Your task to perform on an android device: change keyboard looks Image 0: 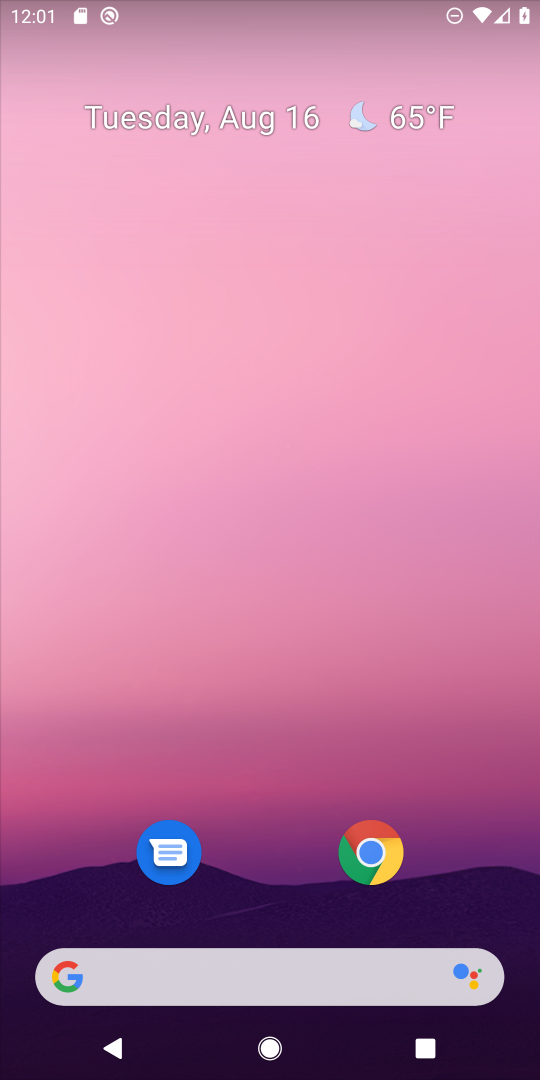
Step 0: drag from (225, 908) to (377, 175)
Your task to perform on an android device: change keyboard looks Image 1: 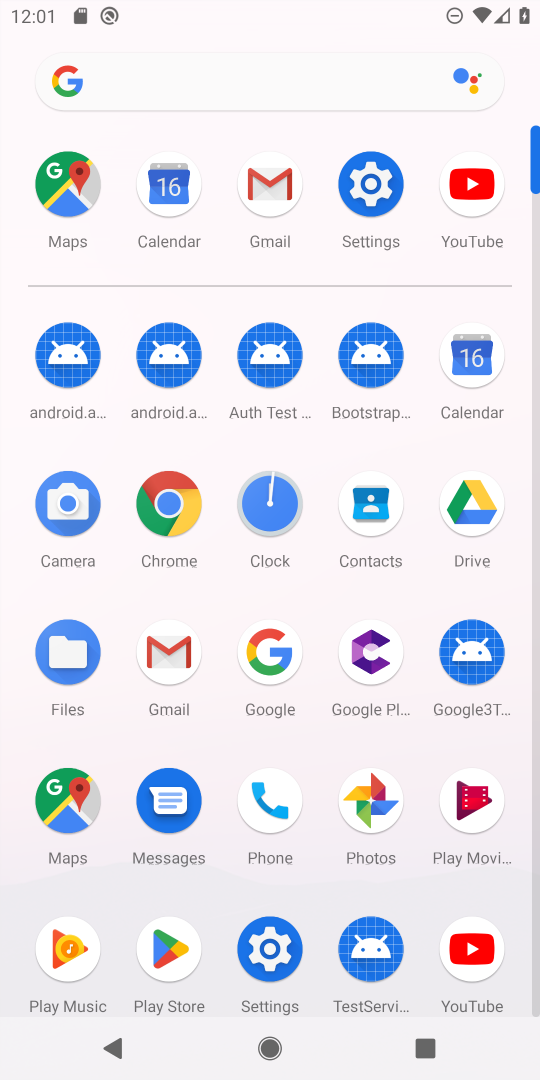
Step 1: click (364, 202)
Your task to perform on an android device: change keyboard looks Image 2: 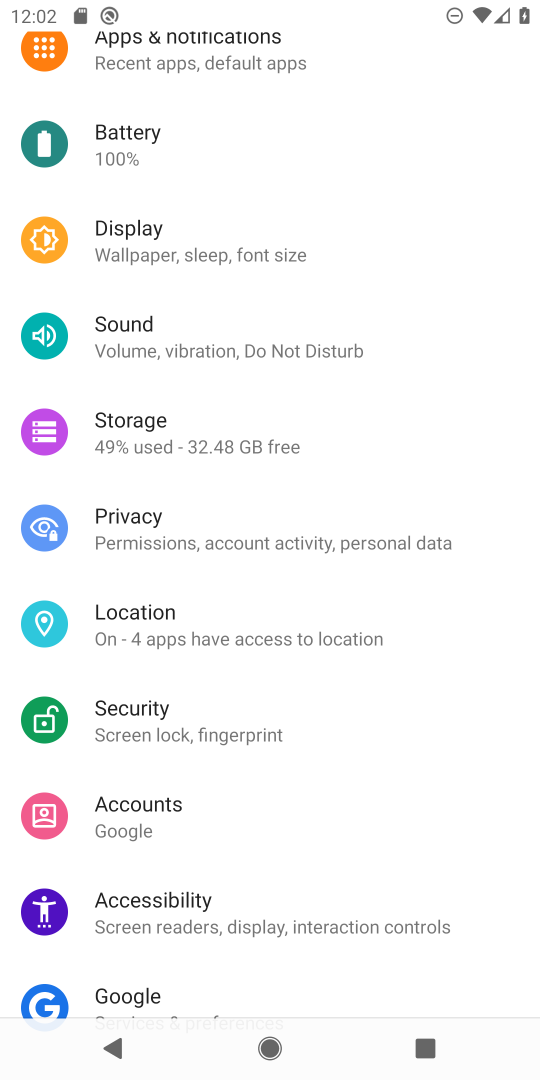
Step 2: drag from (238, 991) to (428, 18)
Your task to perform on an android device: change keyboard looks Image 3: 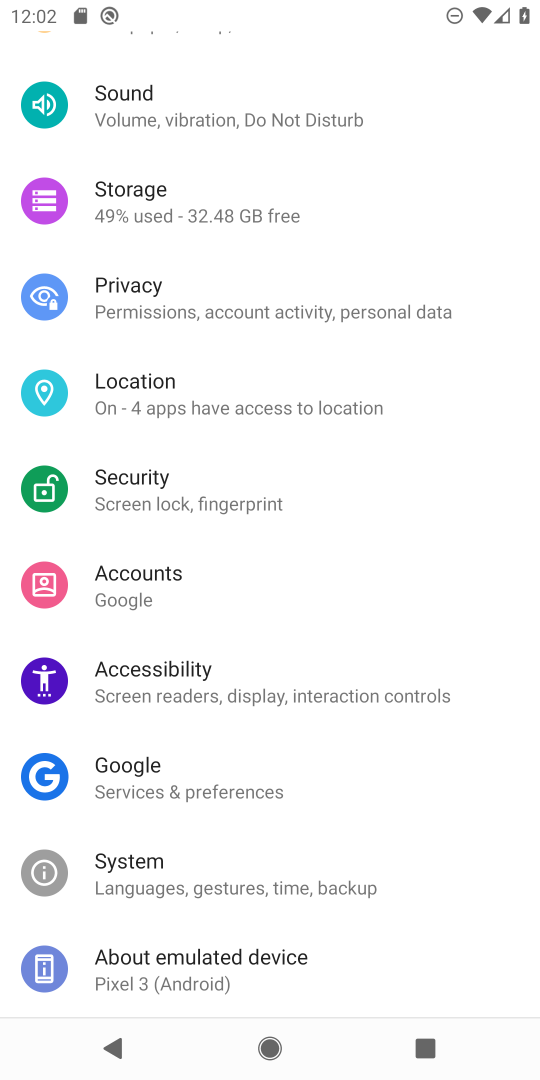
Step 3: click (168, 875)
Your task to perform on an android device: change keyboard looks Image 4: 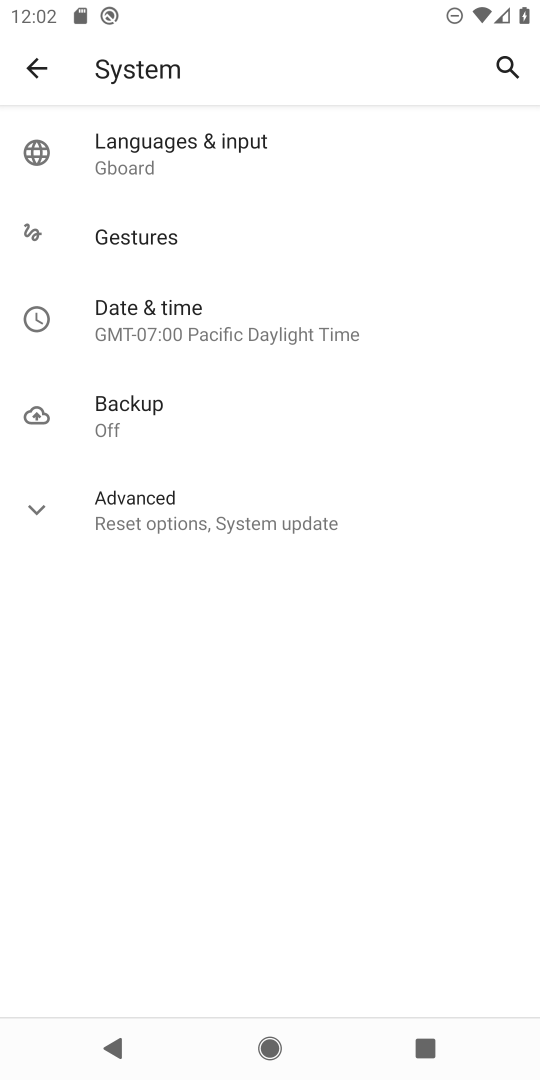
Step 4: click (136, 168)
Your task to perform on an android device: change keyboard looks Image 5: 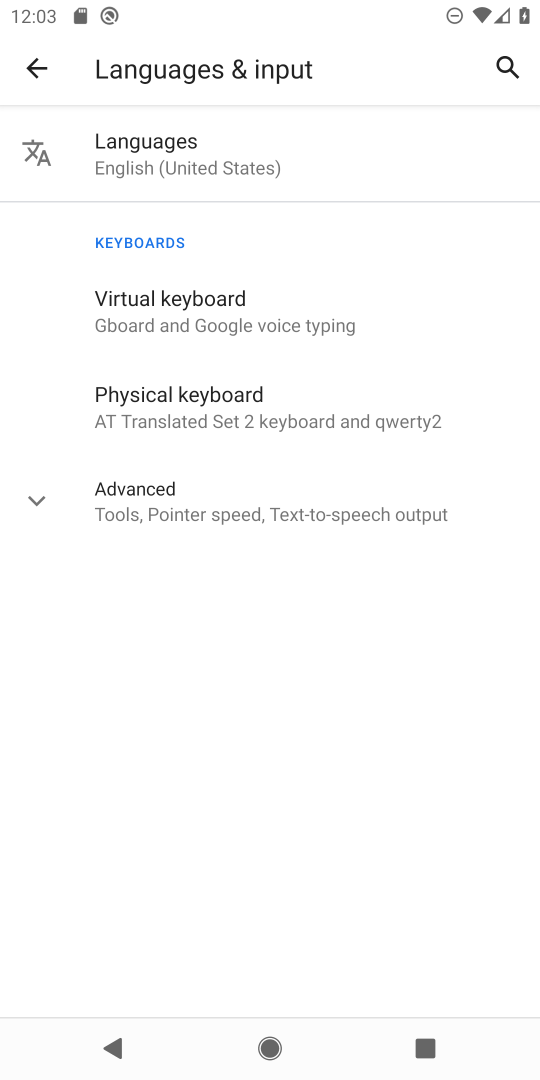
Step 5: click (203, 318)
Your task to perform on an android device: change keyboard looks Image 6: 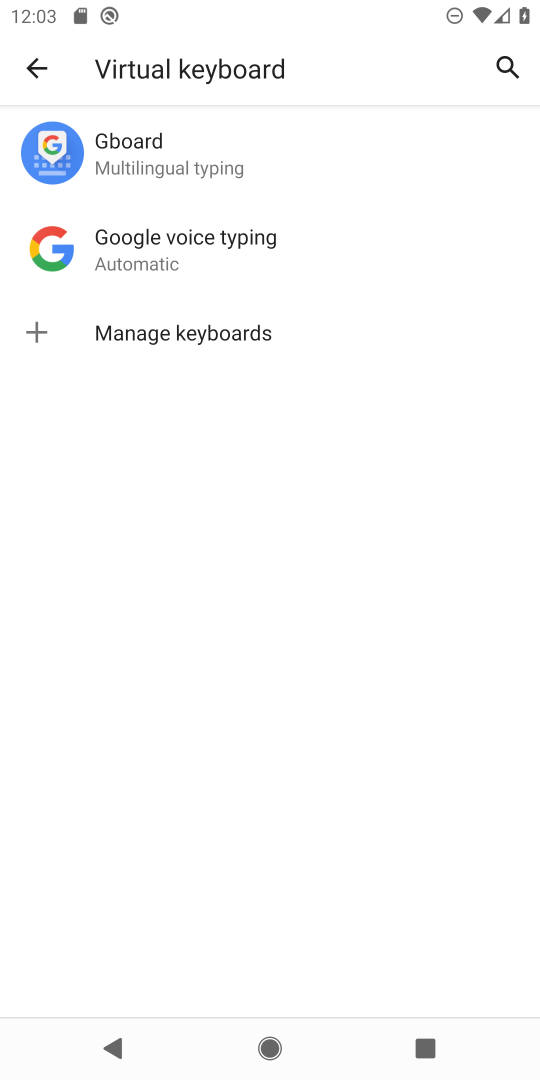
Step 6: click (114, 148)
Your task to perform on an android device: change keyboard looks Image 7: 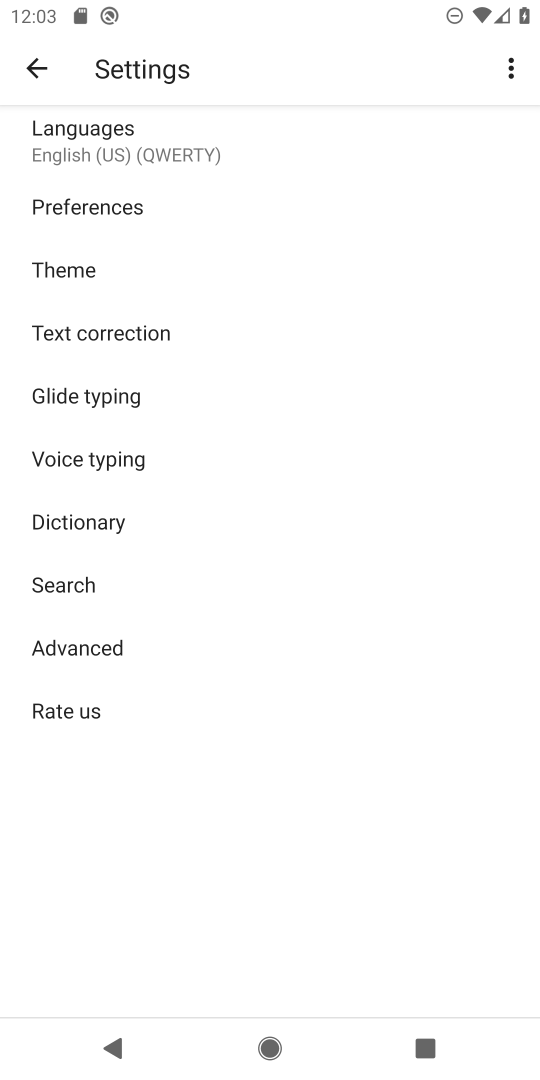
Step 7: click (136, 274)
Your task to perform on an android device: change keyboard looks Image 8: 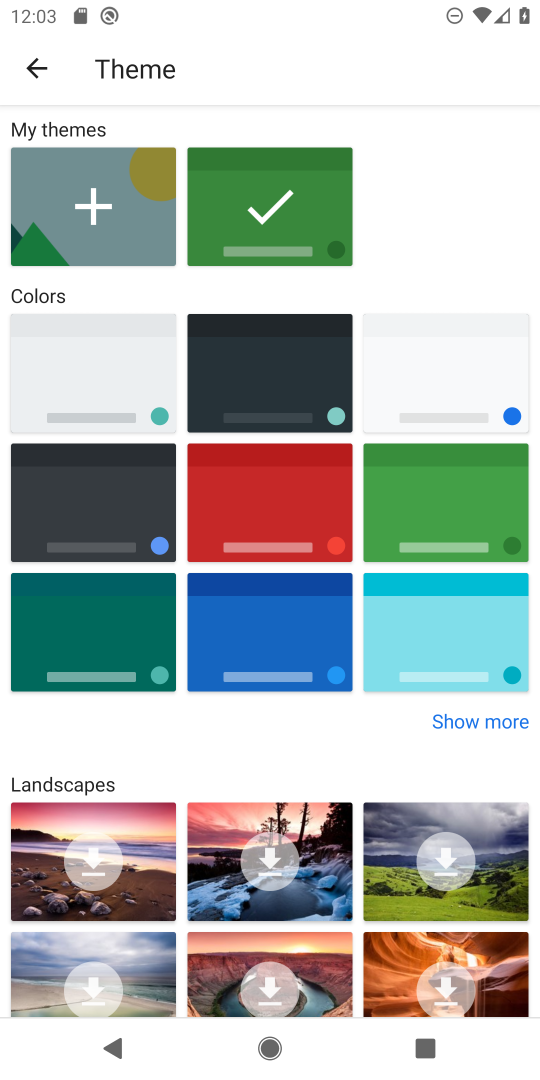
Step 8: click (309, 490)
Your task to perform on an android device: change keyboard looks Image 9: 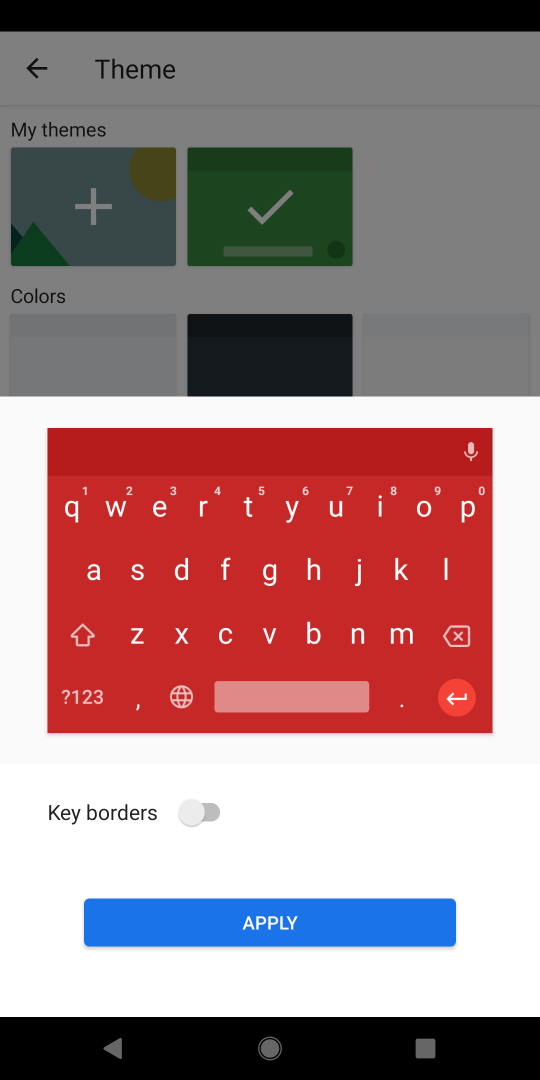
Step 9: click (199, 941)
Your task to perform on an android device: change keyboard looks Image 10: 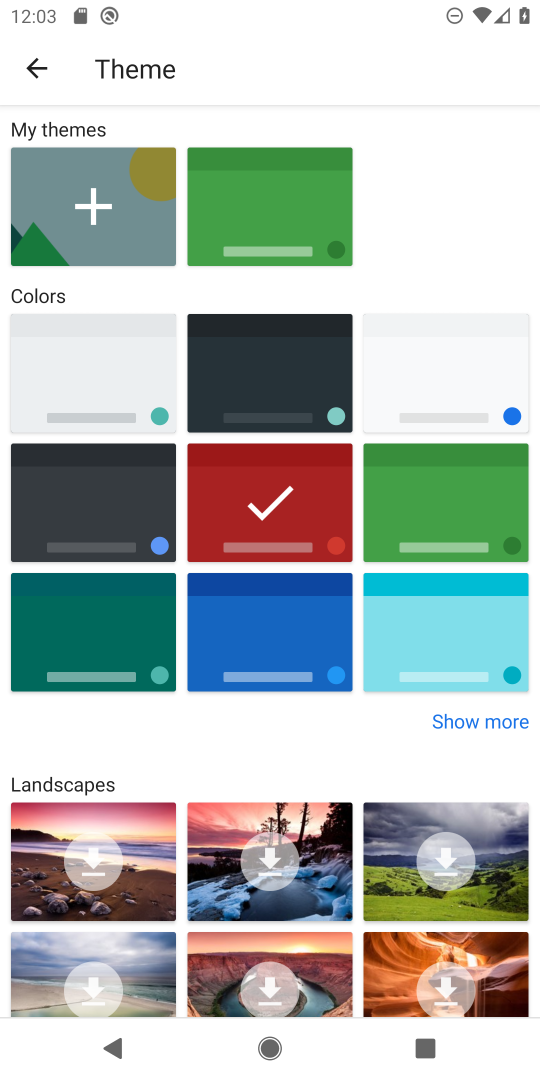
Step 10: task complete